Your task to perform on an android device: Open Wikipedia Image 0: 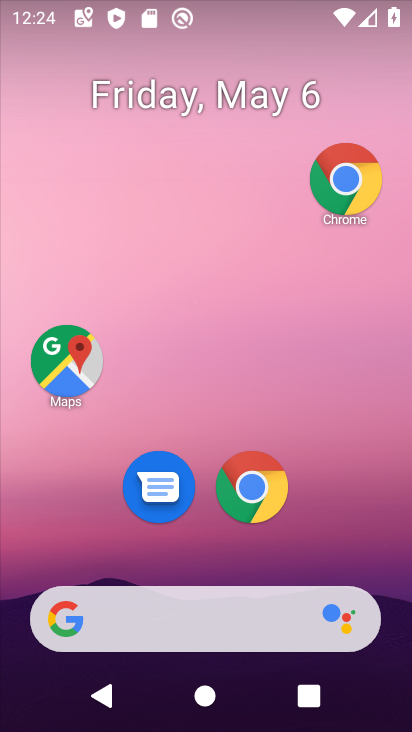
Step 0: click (281, 470)
Your task to perform on an android device: Open Wikipedia Image 1: 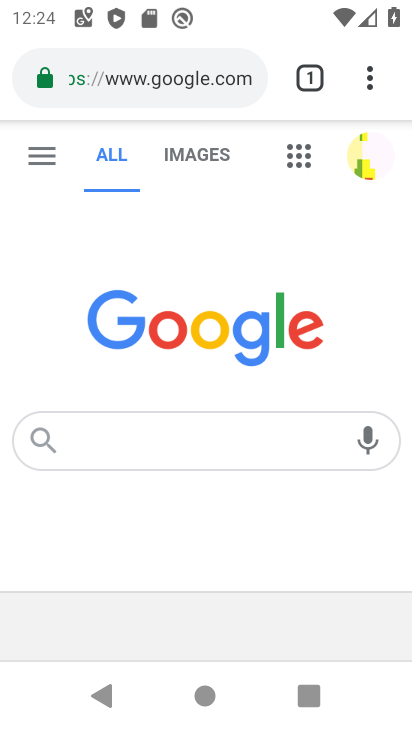
Step 1: click (163, 83)
Your task to perform on an android device: Open Wikipedia Image 2: 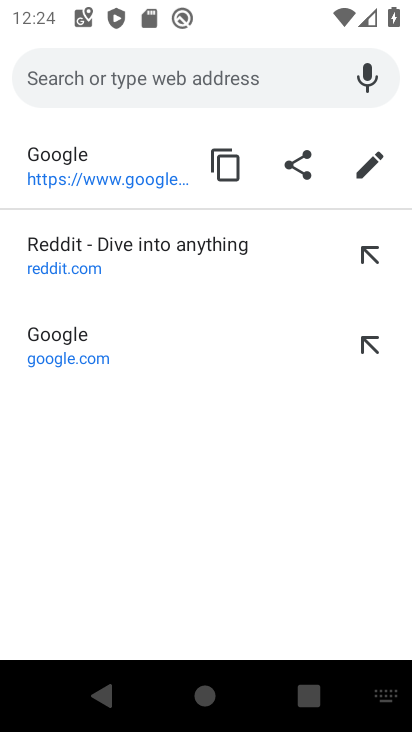
Step 2: type "wikipidea"
Your task to perform on an android device: Open Wikipedia Image 3: 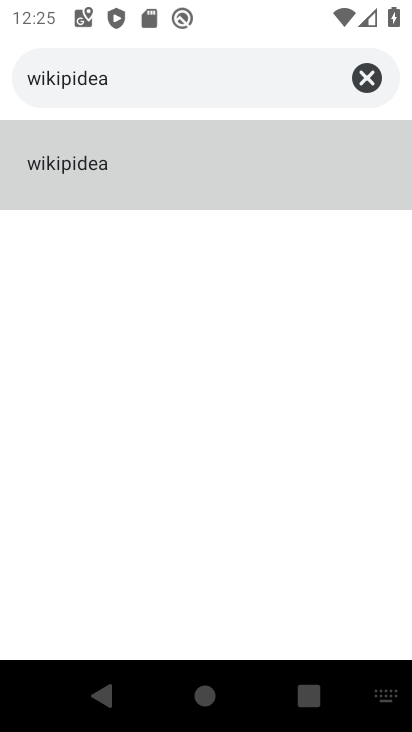
Step 3: click (166, 159)
Your task to perform on an android device: Open Wikipedia Image 4: 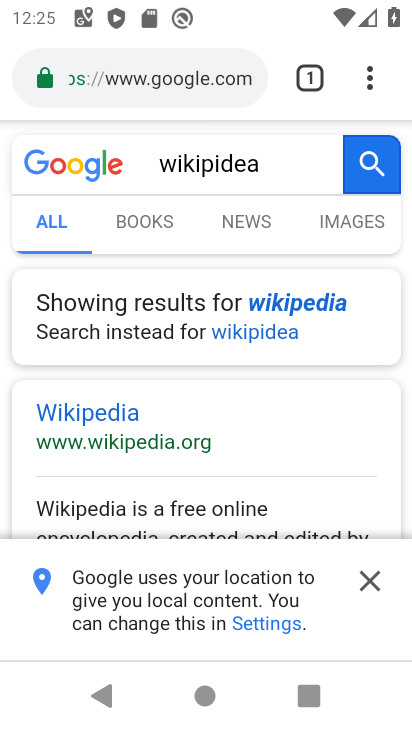
Step 4: click (114, 423)
Your task to perform on an android device: Open Wikipedia Image 5: 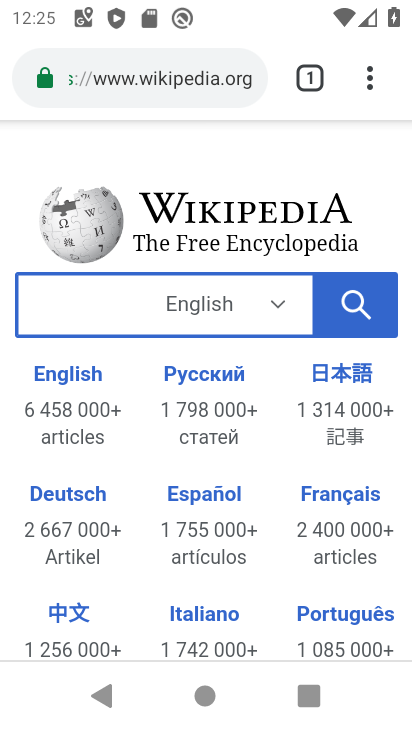
Step 5: task complete